Your task to perform on an android device: turn off priority inbox in the gmail app Image 0: 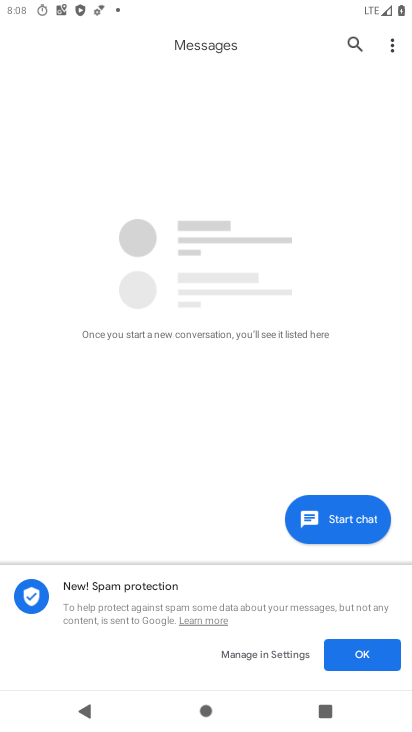
Step 0: drag from (212, 2) to (229, 391)
Your task to perform on an android device: turn off priority inbox in the gmail app Image 1: 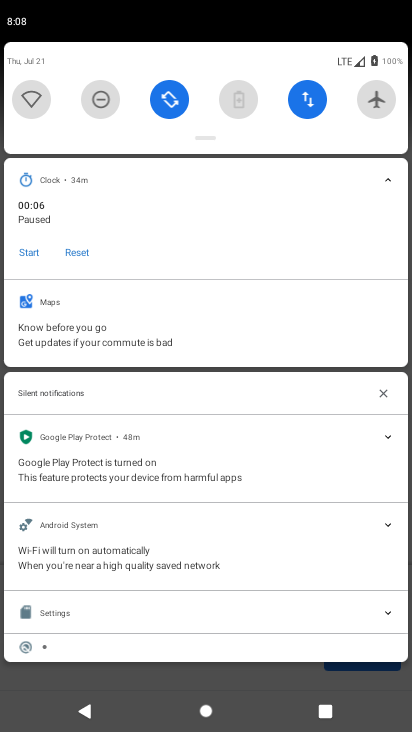
Step 1: press home button
Your task to perform on an android device: turn off priority inbox in the gmail app Image 2: 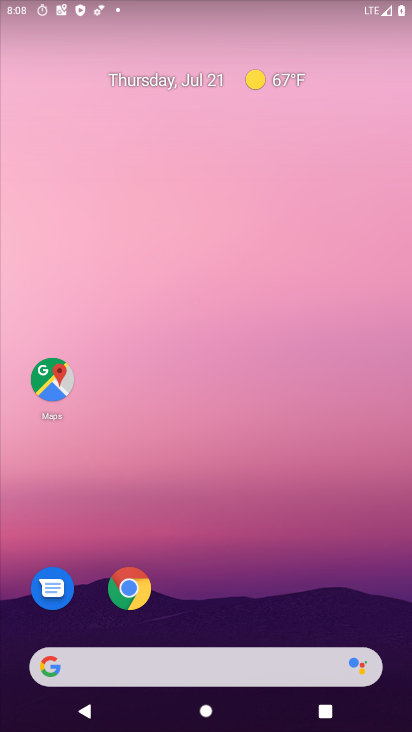
Step 2: drag from (182, 626) to (186, 260)
Your task to perform on an android device: turn off priority inbox in the gmail app Image 3: 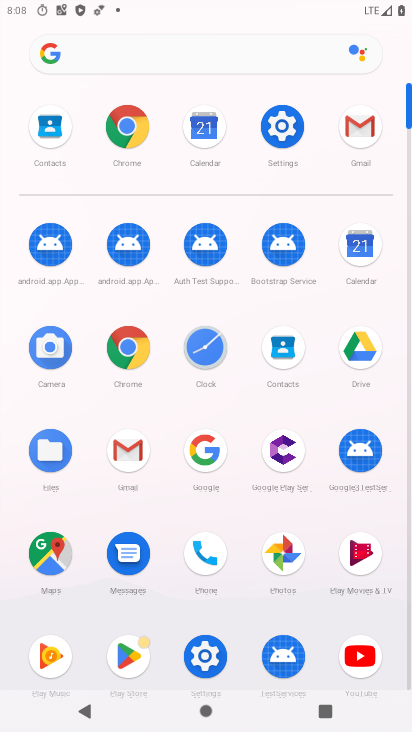
Step 3: click (137, 443)
Your task to perform on an android device: turn off priority inbox in the gmail app Image 4: 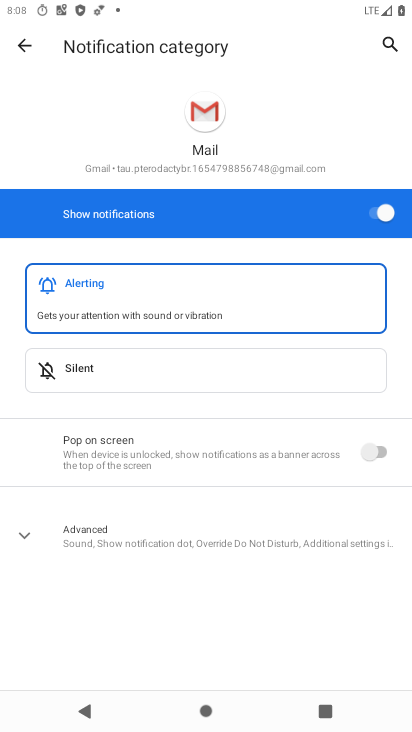
Step 4: click (23, 42)
Your task to perform on an android device: turn off priority inbox in the gmail app Image 5: 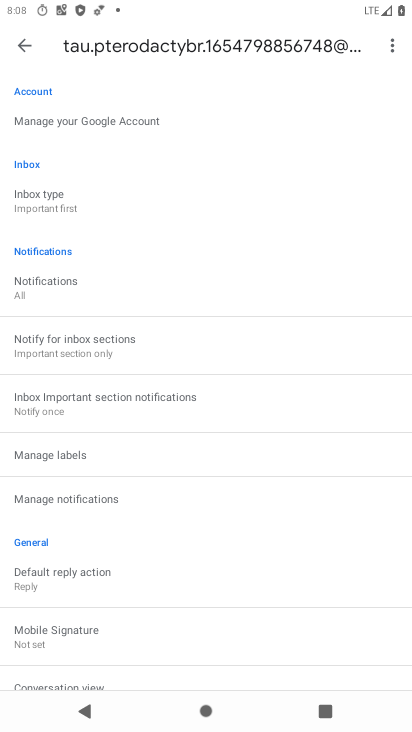
Step 5: task complete